Your task to perform on an android device: Go to Reddit.com Image 0: 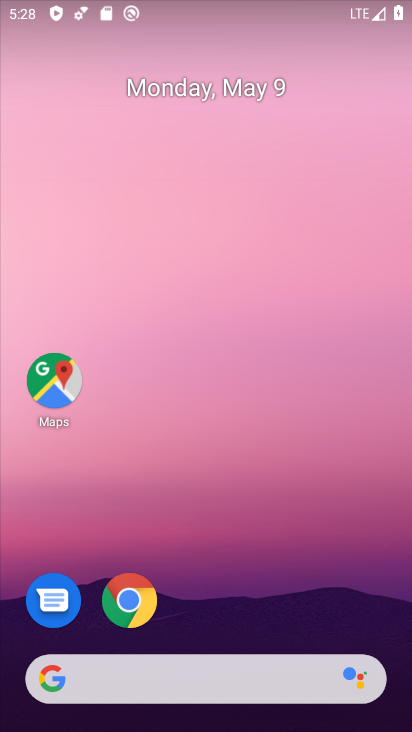
Step 0: click (139, 598)
Your task to perform on an android device: Go to Reddit.com Image 1: 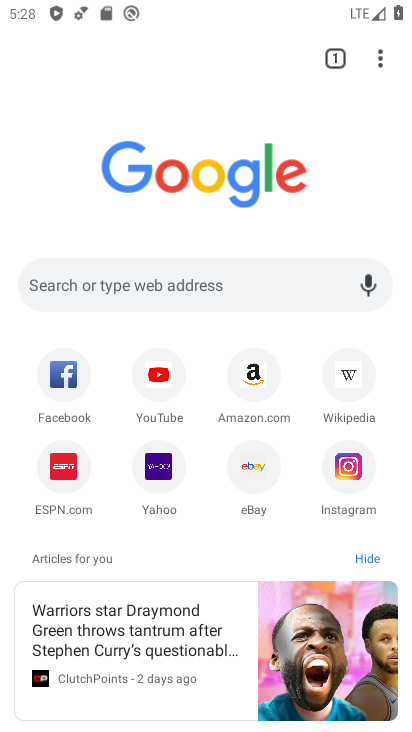
Step 1: click (178, 276)
Your task to perform on an android device: Go to Reddit.com Image 2: 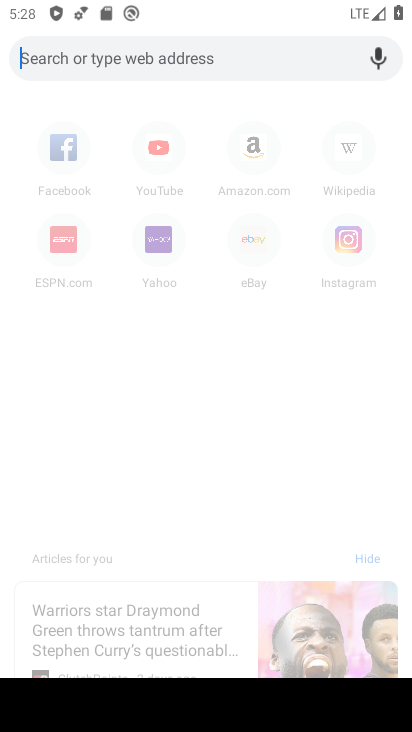
Step 2: type "reddit.com"
Your task to perform on an android device: Go to Reddit.com Image 3: 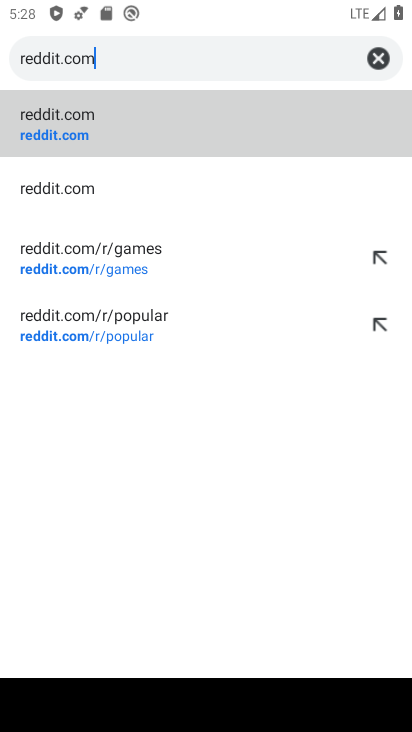
Step 3: click (173, 143)
Your task to perform on an android device: Go to Reddit.com Image 4: 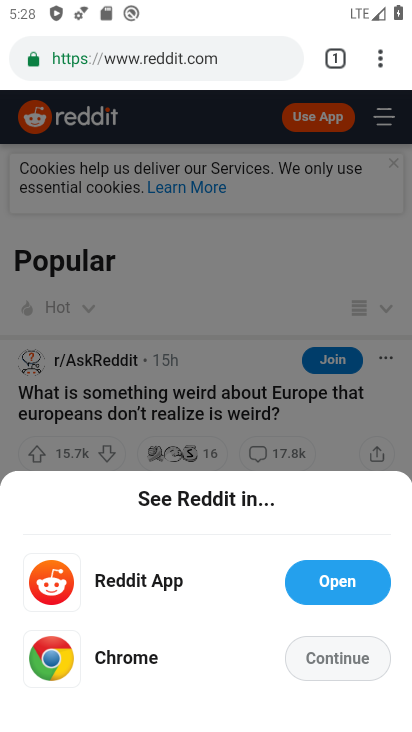
Step 4: task complete